Your task to perform on an android device: all mails in gmail Image 0: 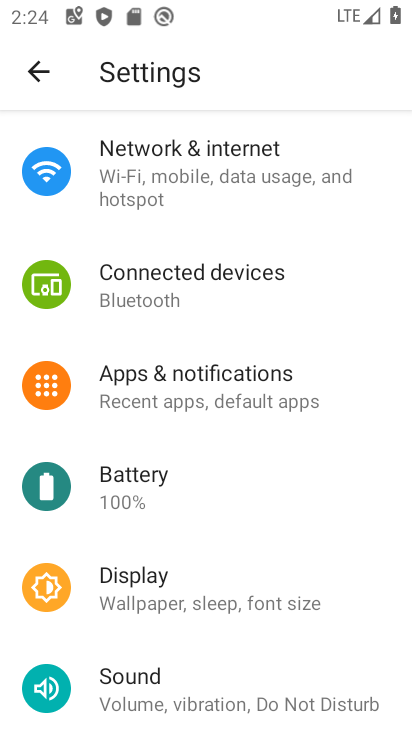
Step 0: press home button
Your task to perform on an android device: all mails in gmail Image 1: 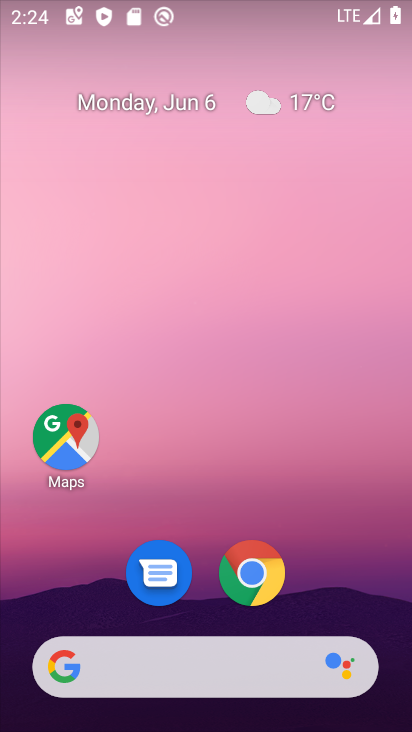
Step 1: drag from (340, 592) to (403, 145)
Your task to perform on an android device: all mails in gmail Image 2: 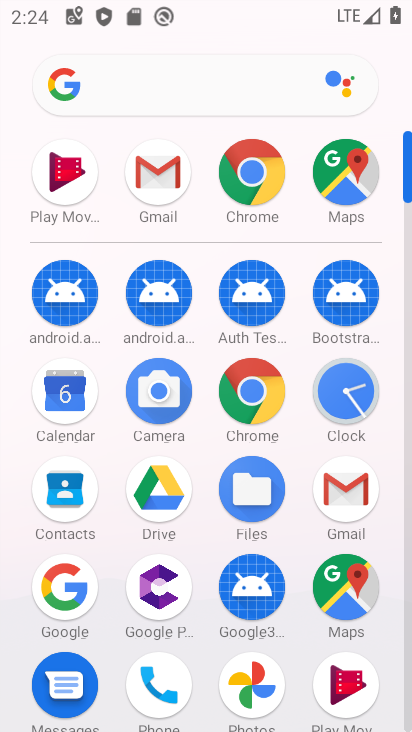
Step 2: click (333, 489)
Your task to perform on an android device: all mails in gmail Image 3: 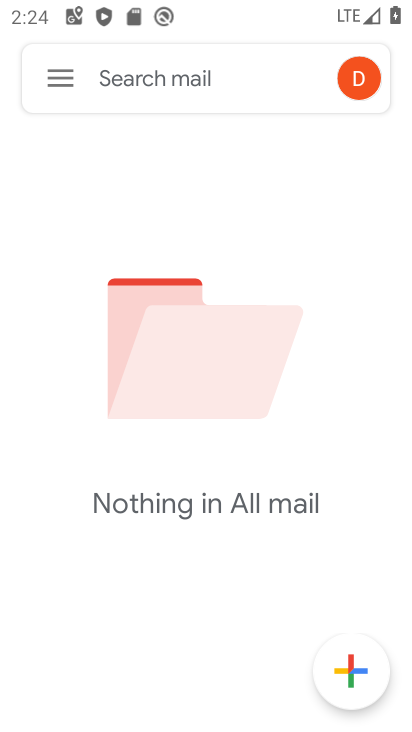
Step 3: click (63, 72)
Your task to perform on an android device: all mails in gmail Image 4: 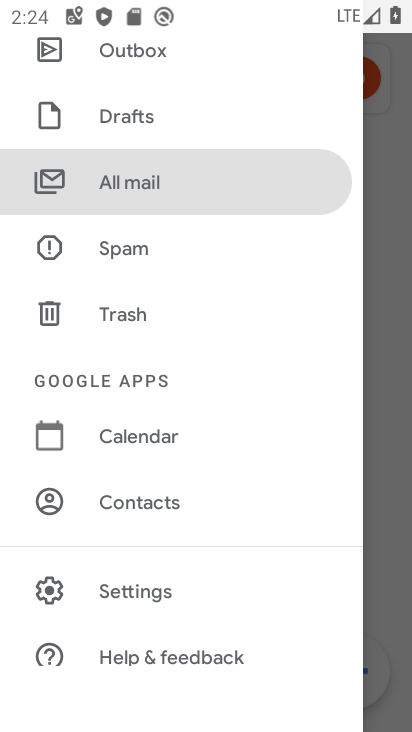
Step 4: drag from (270, 455) to (292, 324)
Your task to perform on an android device: all mails in gmail Image 5: 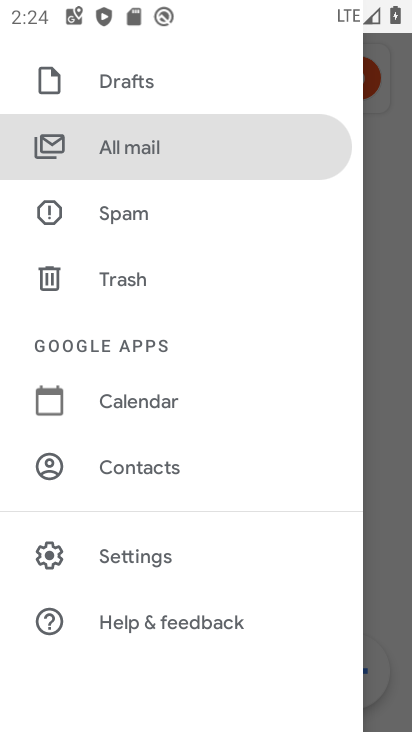
Step 5: click (217, 146)
Your task to perform on an android device: all mails in gmail Image 6: 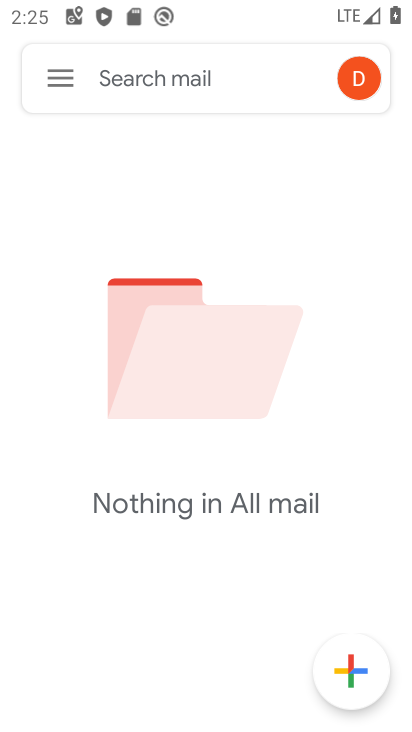
Step 6: task complete